Your task to perform on an android device: Go to Reddit.com Image 0: 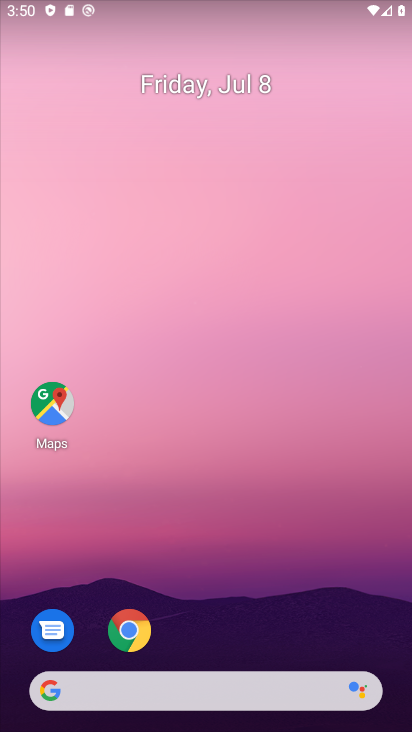
Step 0: click (208, 700)
Your task to perform on an android device: Go to Reddit.com Image 1: 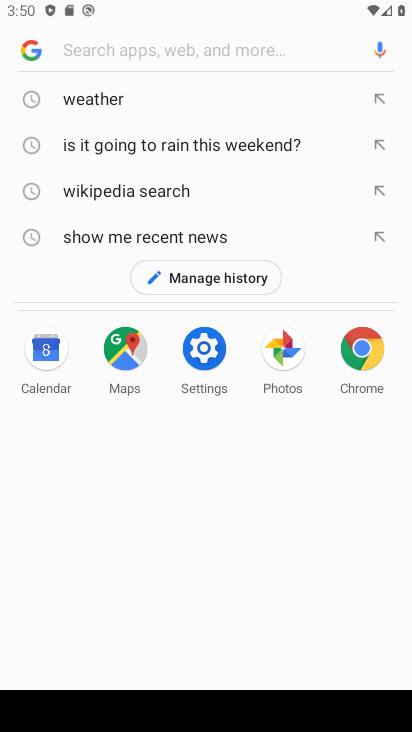
Step 1: click (91, 54)
Your task to perform on an android device: Go to Reddit.com Image 2: 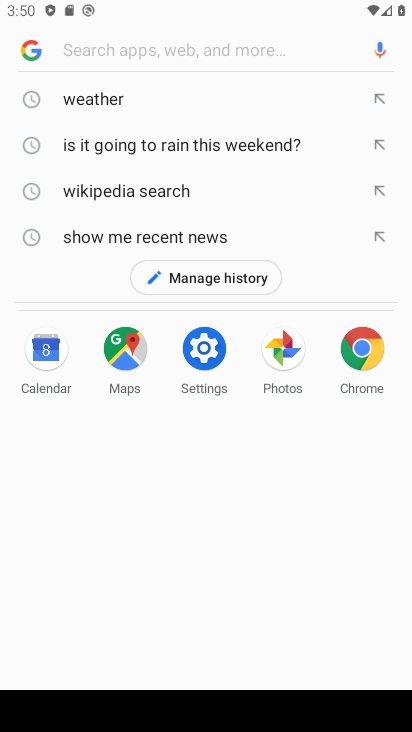
Step 2: type "Reddit.com"
Your task to perform on an android device: Go to Reddit.com Image 3: 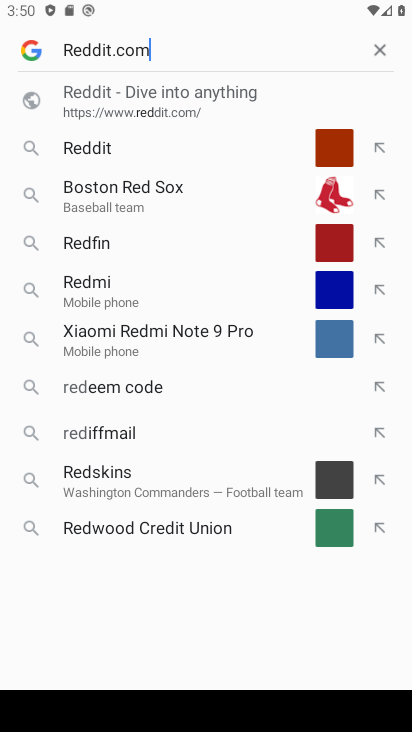
Step 3: type ""
Your task to perform on an android device: Go to Reddit.com Image 4: 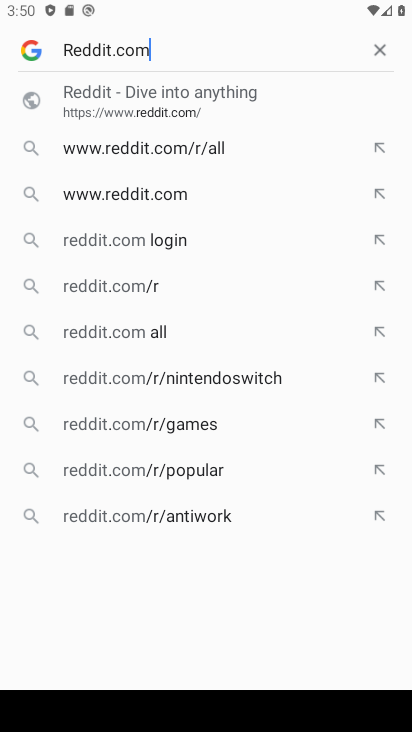
Step 4: type ""
Your task to perform on an android device: Go to Reddit.com Image 5: 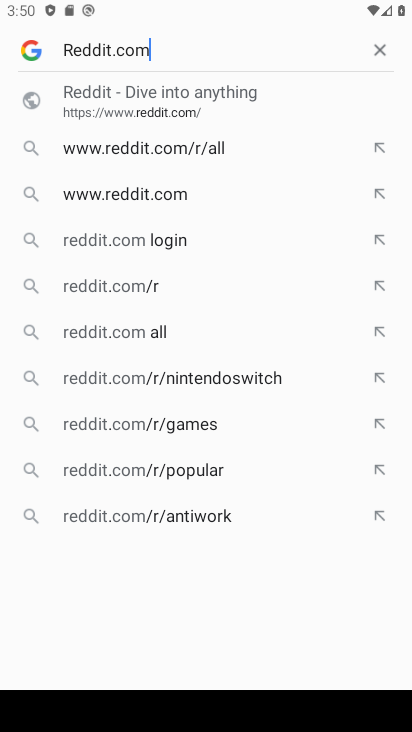
Step 5: task complete